Your task to perform on an android device: check out phone information Image 0: 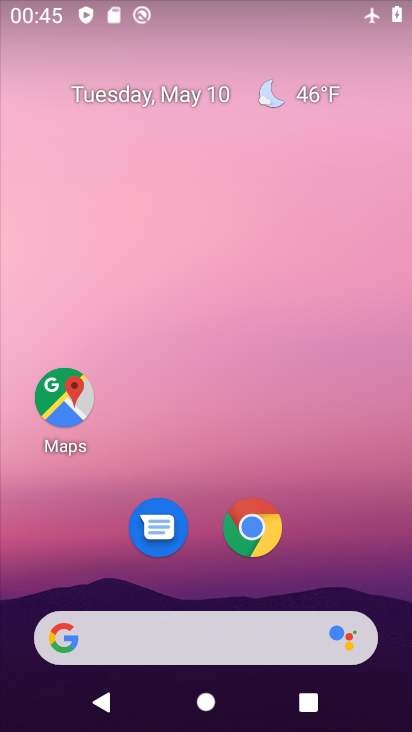
Step 0: drag from (331, 490) to (245, 210)
Your task to perform on an android device: check out phone information Image 1: 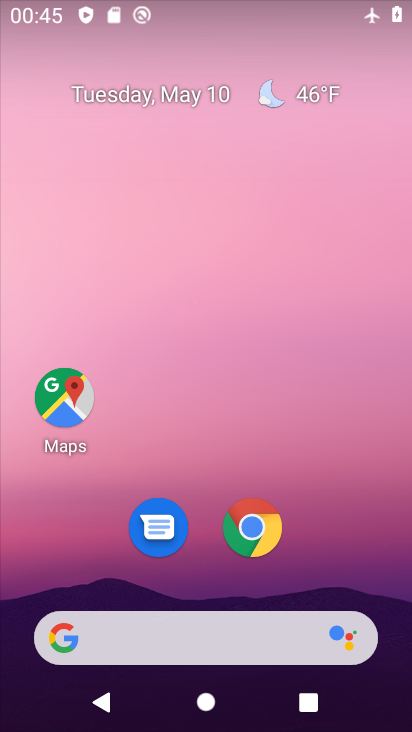
Step 1: drag from (312, 571) to (248, 122)
Your task to perform on an android device: check out phone information Image 2: 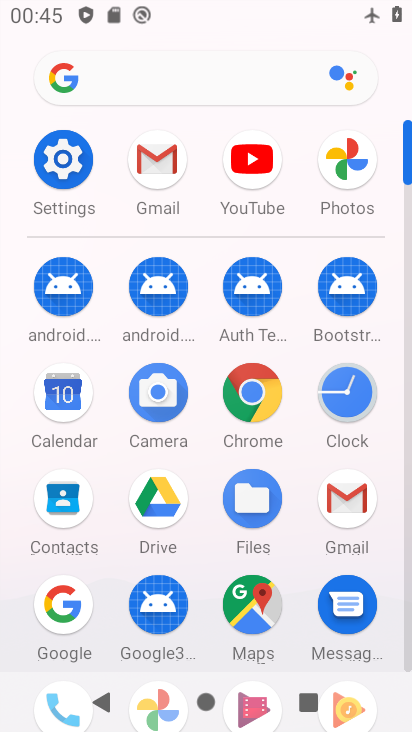
Step 2: drag from (103, 616) to (98, 326)
Your task to perform on an android device: check out phone information Image 3: 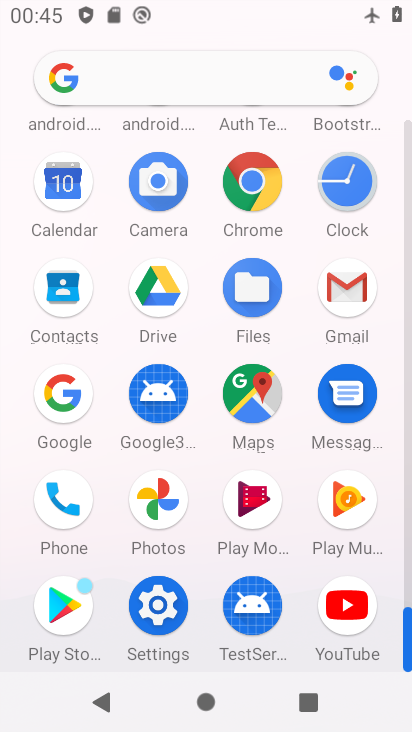
Step 3: click (64, 484)
Your task to perform on an android device: check out phone information Image 4: 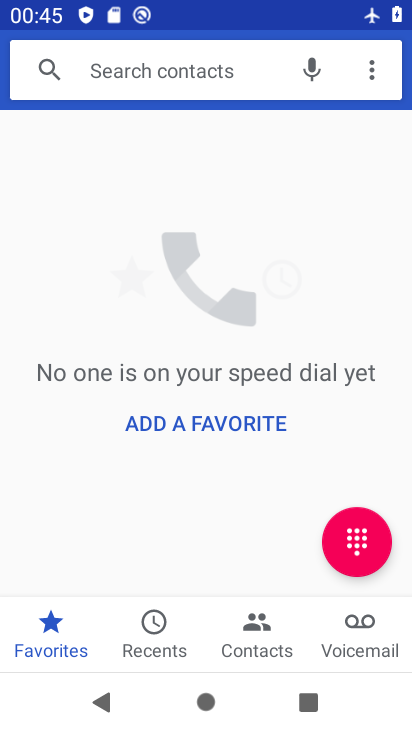
Step 4: click (369, 76)
Your task to perform on an android device: check out phone information Image 5: 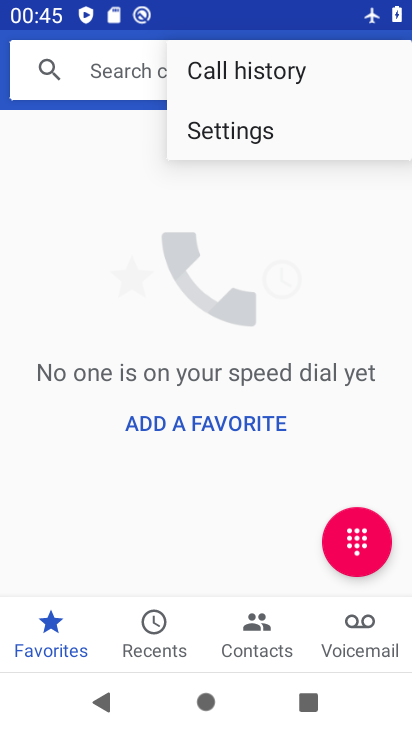
Step 5: click (239, 137)
Your task to perform on an android device: check out phone information Image 6: 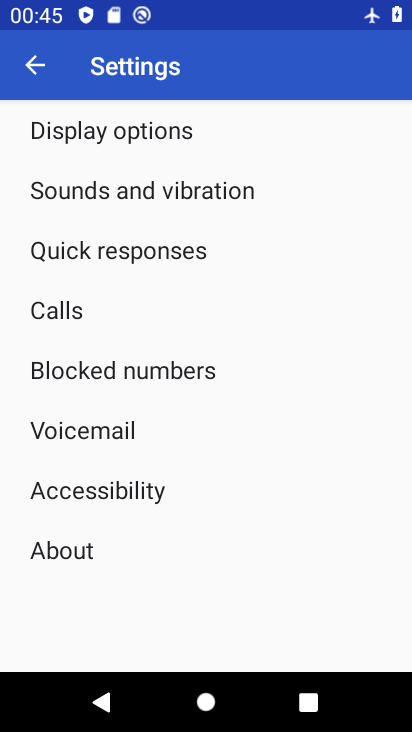
Step 6: click (64, 550)
Your task to perform on an android device: check out phone information Image 7: 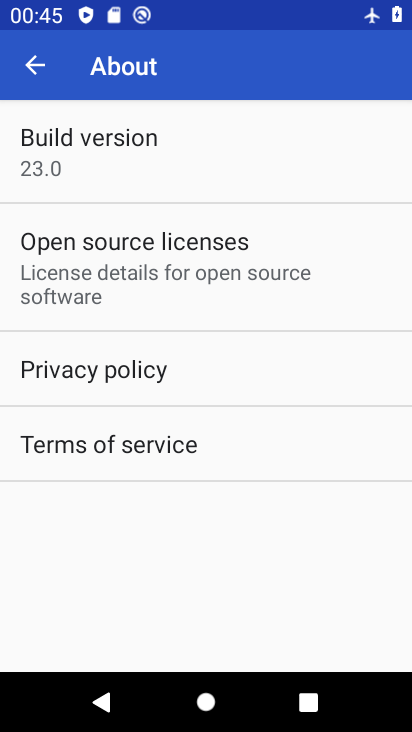
Step 7: task complete